Your task to perform on an android device: check google app version Image 0: 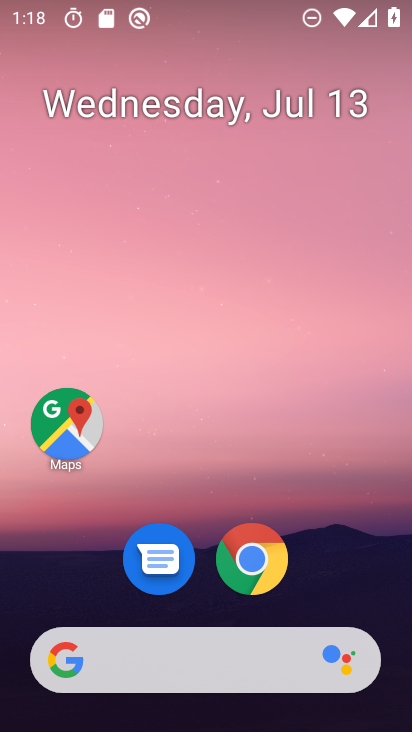
Step 0: drag from (236, 640) to (216, 242)
Your task to perform on an android device: check google app version Image 1: 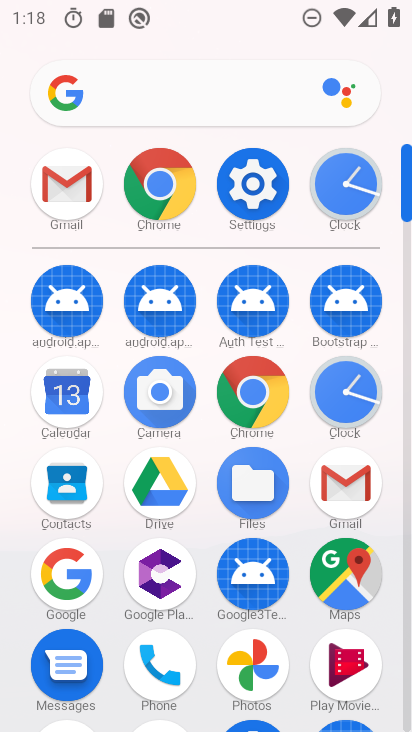
Step 1: click (73, 585)
Your task to perform on an android device: check google app version Image 2: 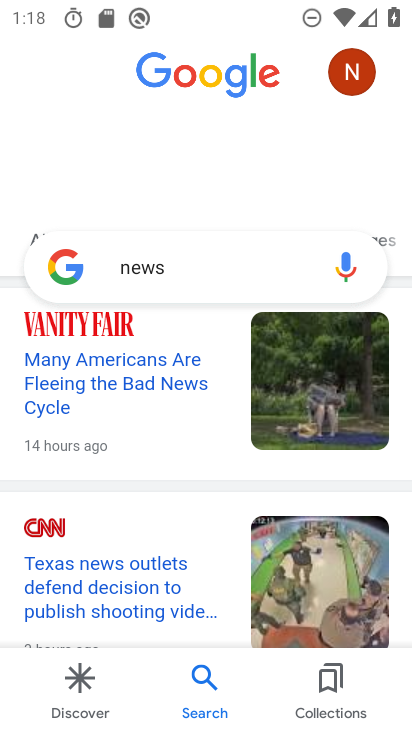
Step 2: click (337, 84)
Your task to perform on an android device: check google app version Image 3: 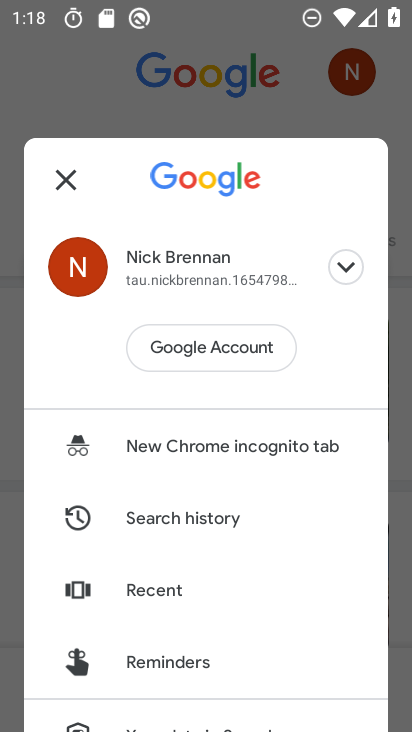
Step 3: drag from (218, 561) to (243, 277)
Your task to perform on an android device: check google app version Image 4: 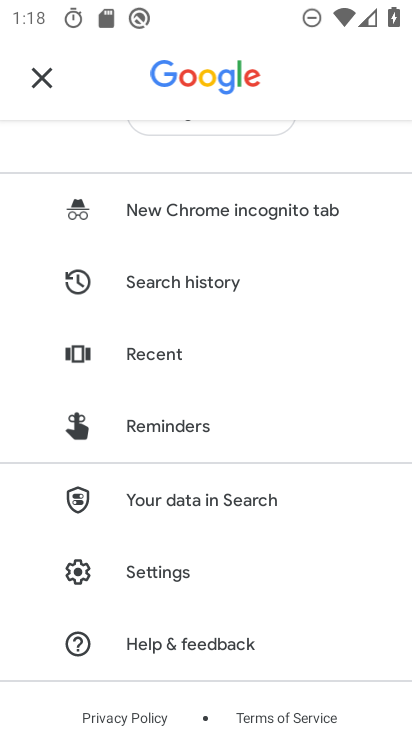
Step 4: click (147, 583)
Your task to perform on an android device: check google app version Image 5: 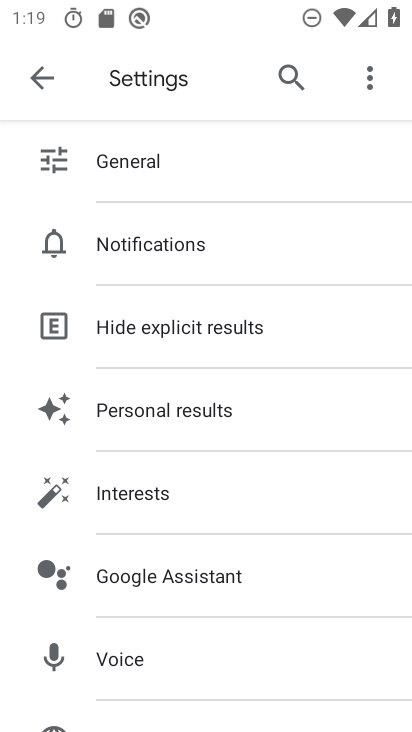
Step 5: drag from (193, 567) to (219, 198)
Your task to perform on an android device: check google app version Image 6: 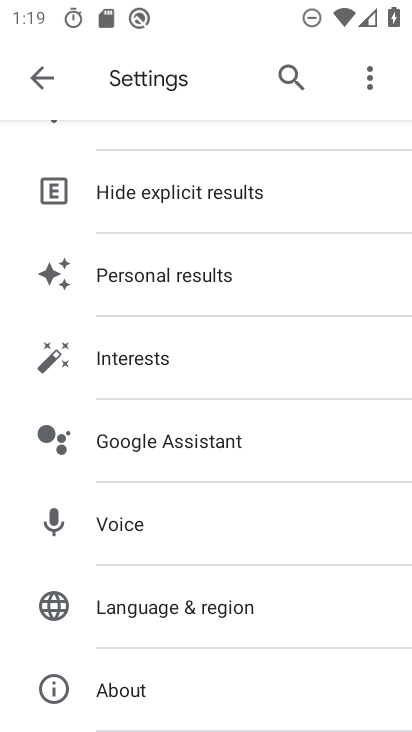
Step 6: click (145, 691)
Your task to perform on an android device: check google app version Image 7: 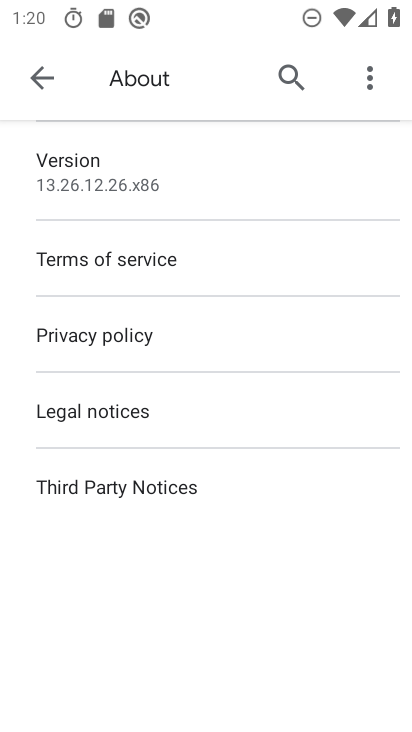
Step 7: click (153, 185)
Your task to perform on an android device: check google app version Image 8: 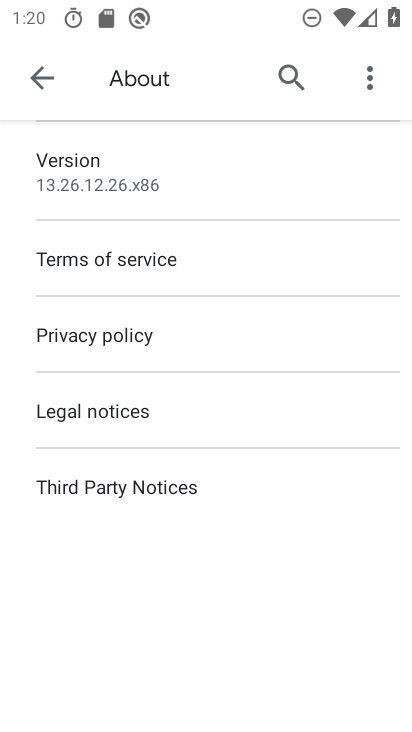
Step 8: task complete